Your task to perform on an android device: turn off wifi Image 0: 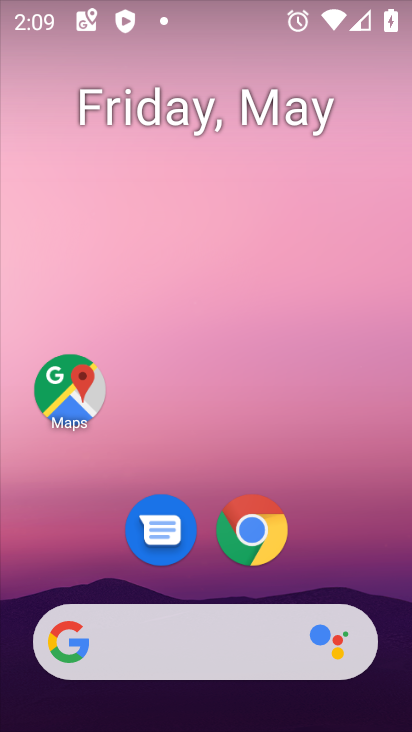
Step 0: drag from (328, 550) to (283, 18)
Your task to perform on an android device: turn off wifi Image 1: 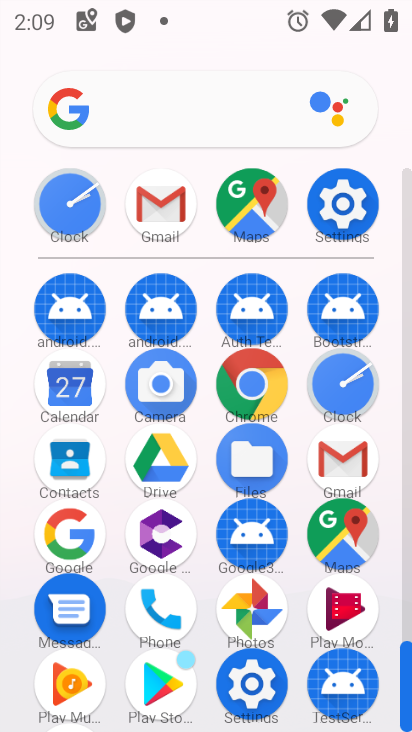
Step 1: click (344, 200)
Your task to perform on an android device: turn off wifi Image 2: 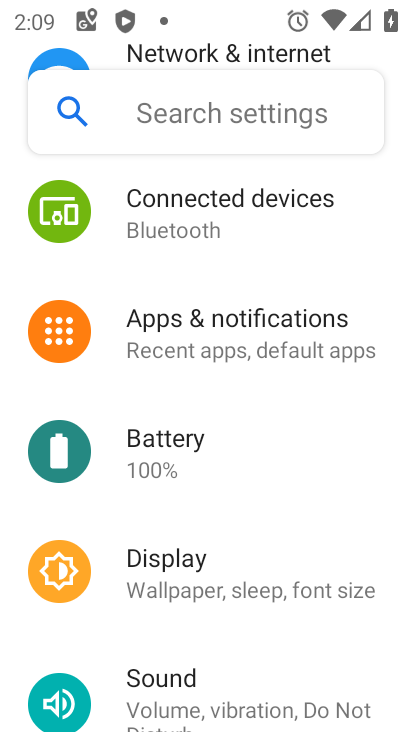
Step 2: drag from (185, 269) to (181, 626)
Your task to perform on an android device: turn off wifi Image 3: 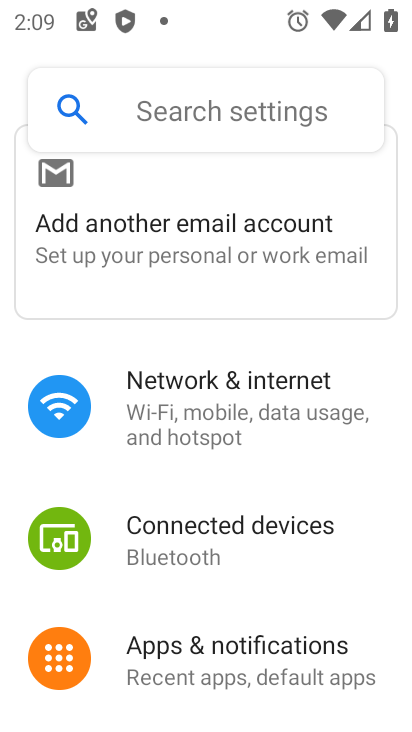
Step 3: click (180, 391)
Your task to perform on an android device: turn off wifi Image 4: 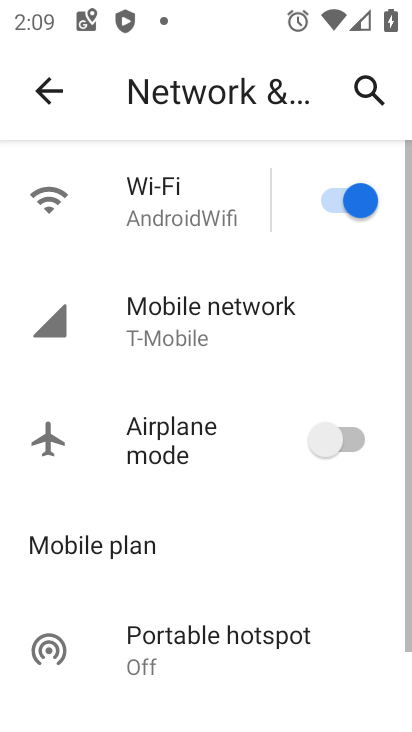
Step 4: click (340, 202)
Your task to perform on an android device: turn off wifi Image 5: 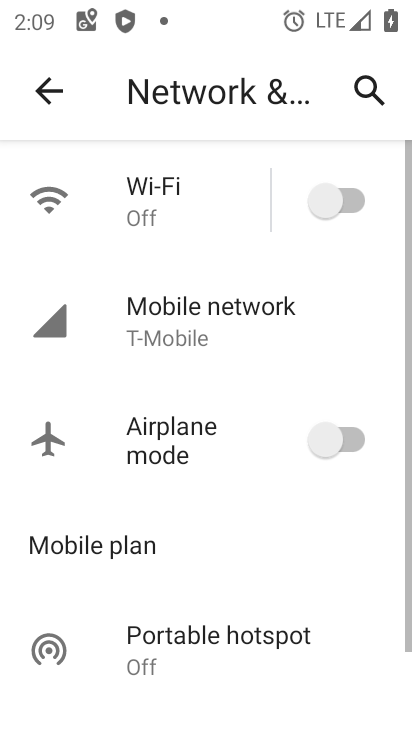
Step 5: task complete